Your task to perform on an android device: Open calendar and show me the fourth week of next month Image 0: 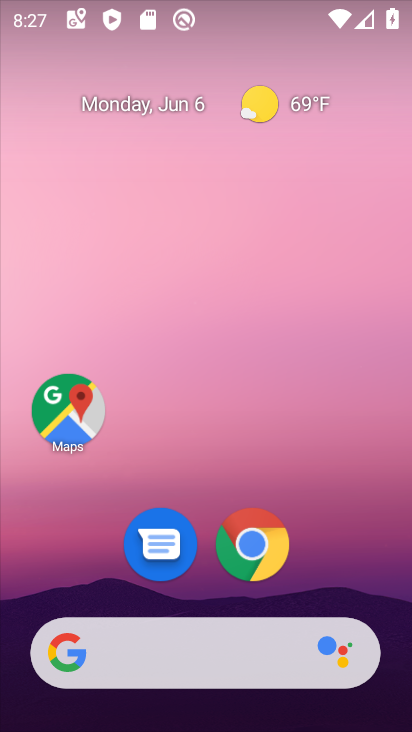
Step 0: drag from (216, 578) to (231, 167)
Your task to perform on an android device: Open calendar and show me the fourth week of next month Image 1: 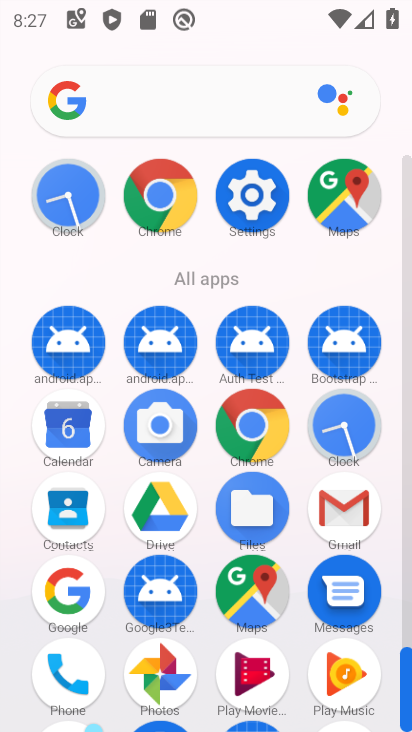
Step 1: click (63, 433)
Your task to perform on an android device: Open calendar and show me the fourth week of next month Image 2: 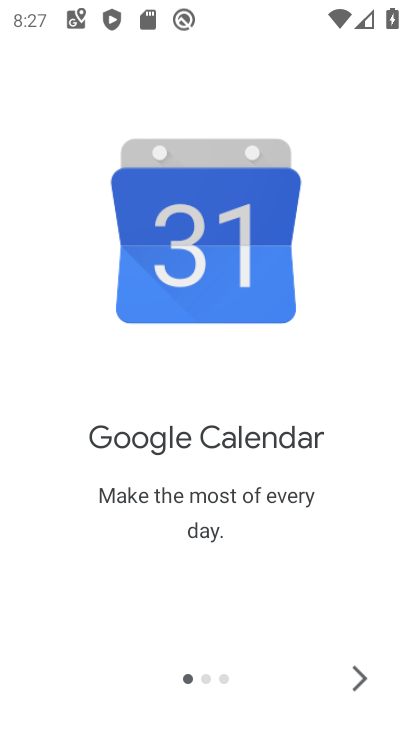
Step 2: click (358, 673)
Your task to perform on an android device: Open calendar and show me the fourth week of next month Image 3: 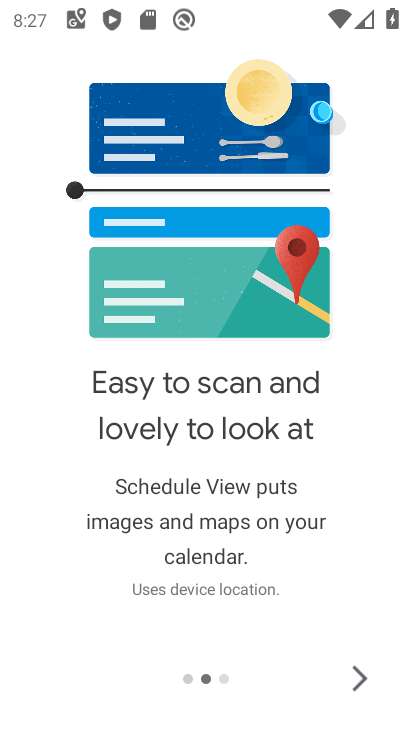
Step 3: click (358, 673)
Your task to perform on an android device: Open calendar and show me the fourth week of next month Image 4: 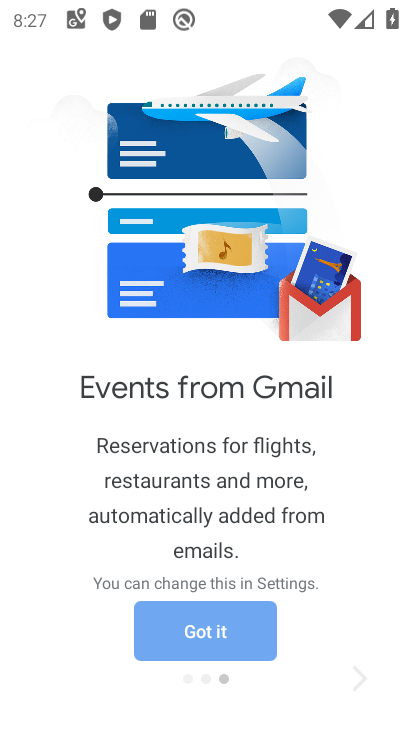
Step 4: click (358, 673)
Your task to perform on an android device: Open calendar and show me the fourth week of next month Image 5: 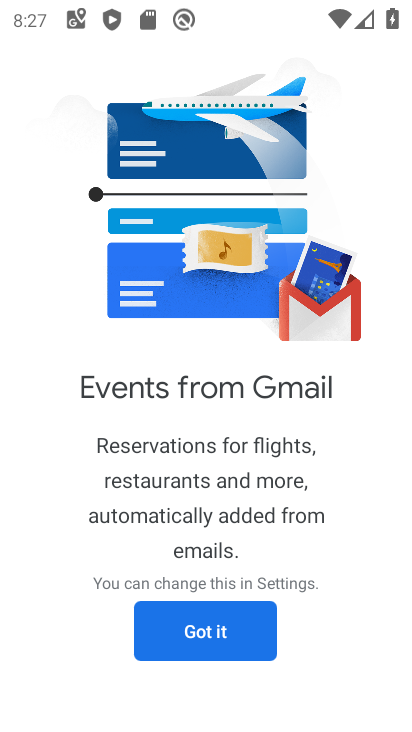
Step 5: click (209, 641)
Your task to perform on an android device: Open calendar and show me the fourth week of next month Image 6: 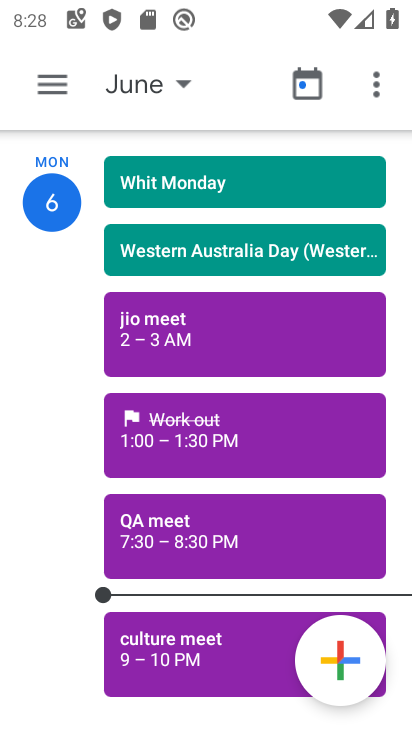
Step 6: click (181, 92)
Your task to perform on an android device: Open calendar and show me the fourth week of next month Image 7: 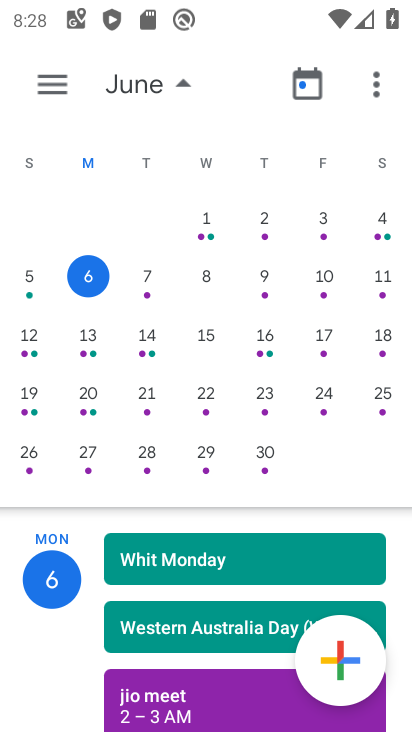
Step 7: drag from (286, 286) to (29, 279)
Your task to perform on an android device: Open calendar and show me the fourth week of next month Image 8: 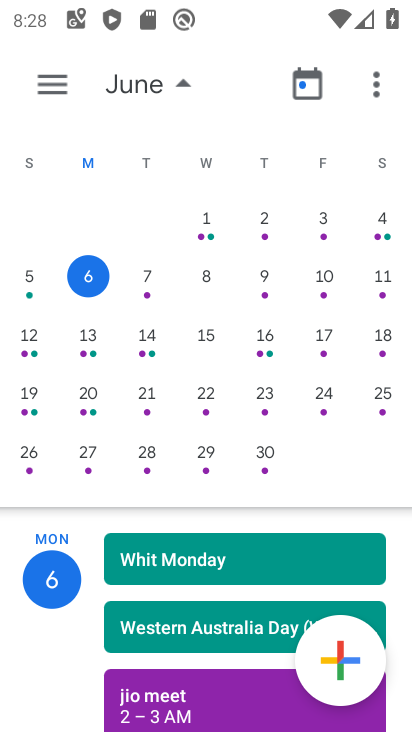
Step 8: click (31, 394)
Your task to perform on an android device: Open calendar and show me the fourth week of next month Image 9: 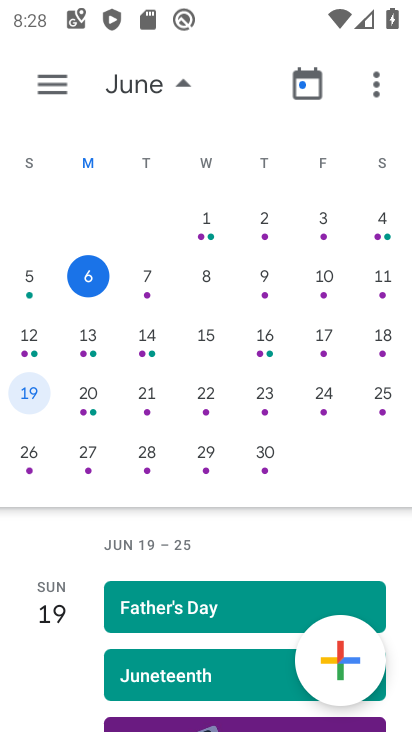
Step 9: click (55, 81)
Your task to perform on an android device: Open calendar and show me the fourth week of next month Image 10: 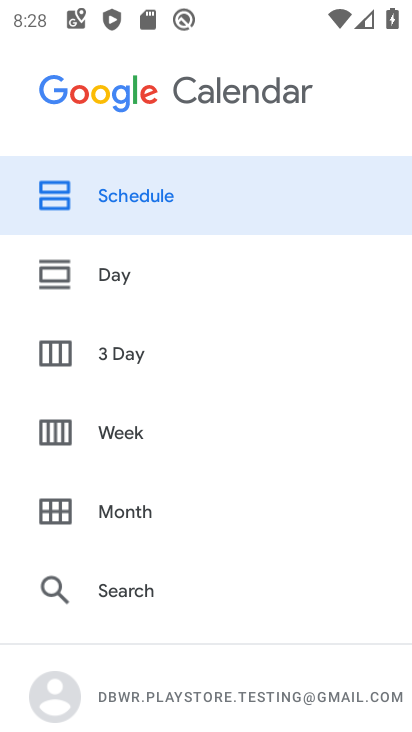
Step 10: click (135, 426)
Your task to perform on an android device: Open calendar and show me the fourth week of next month Image 11: 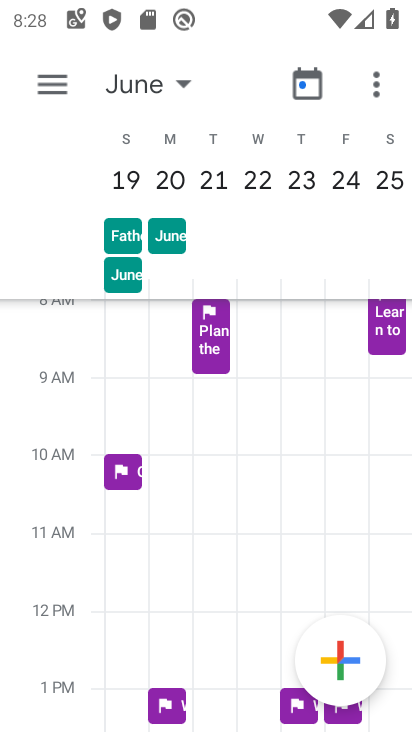
Step 11: task complete